Your task to perform on an android device: Open internet settings Image 0: 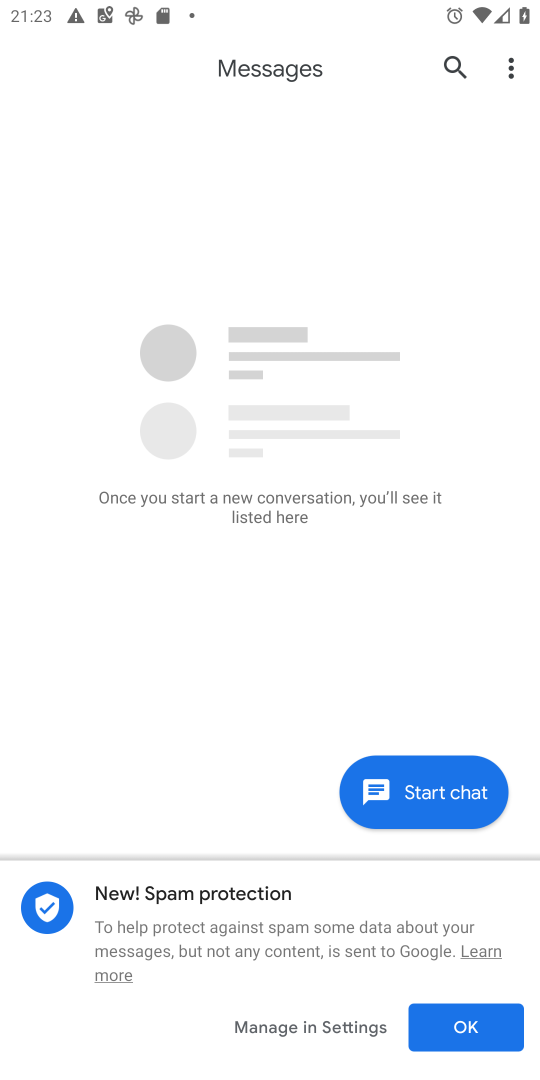
Step 0: press home button
Your task to perform on an android device: Open internet settings Image 1: 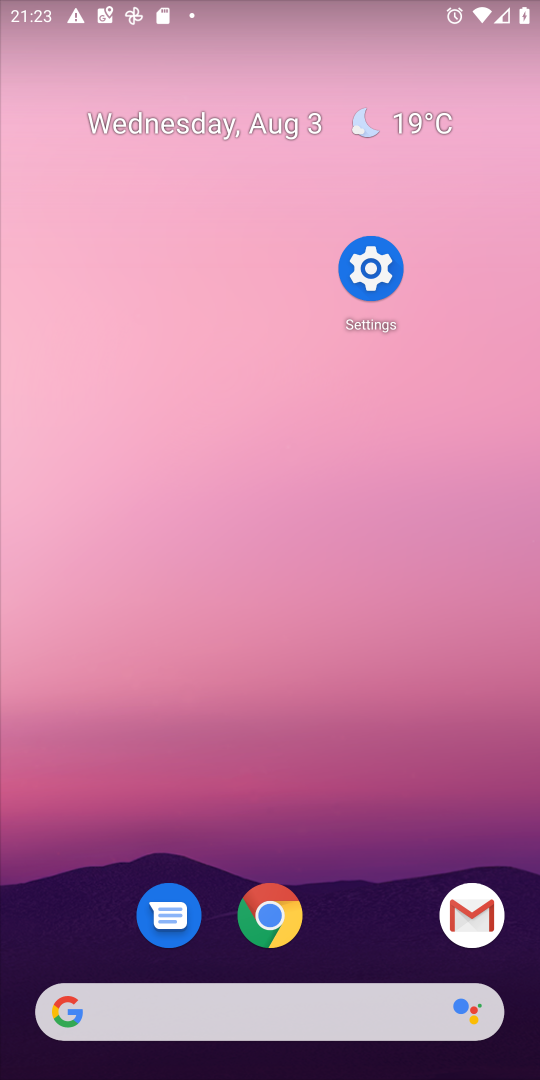
Step 1: drag from (345, 954) to (237, 276)
Your task to perform on an android device: Open internet settings Image 2: 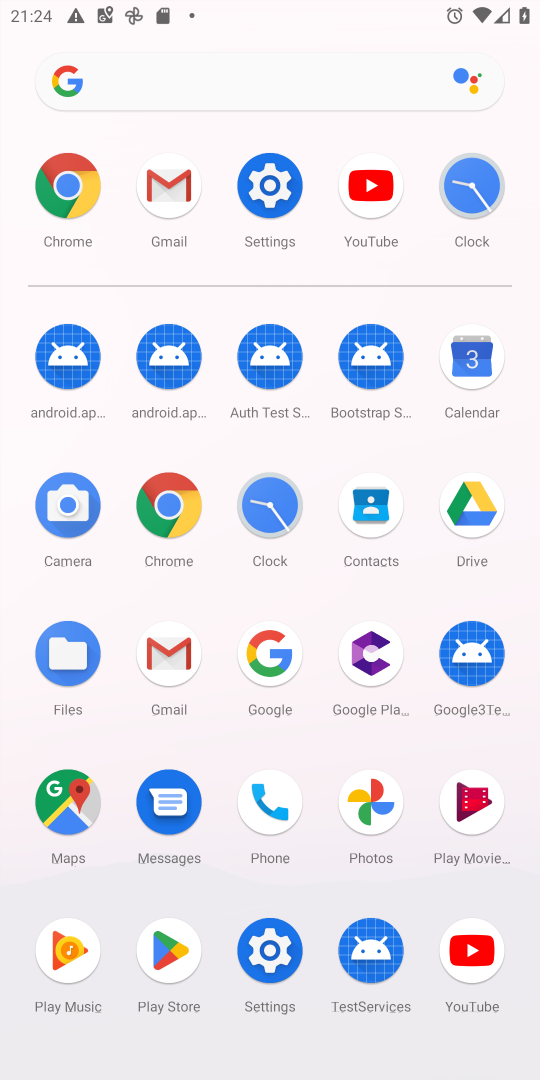
Step 2: click (277, 190)
Your task to perform on an android device: Open internet settings Image 3: 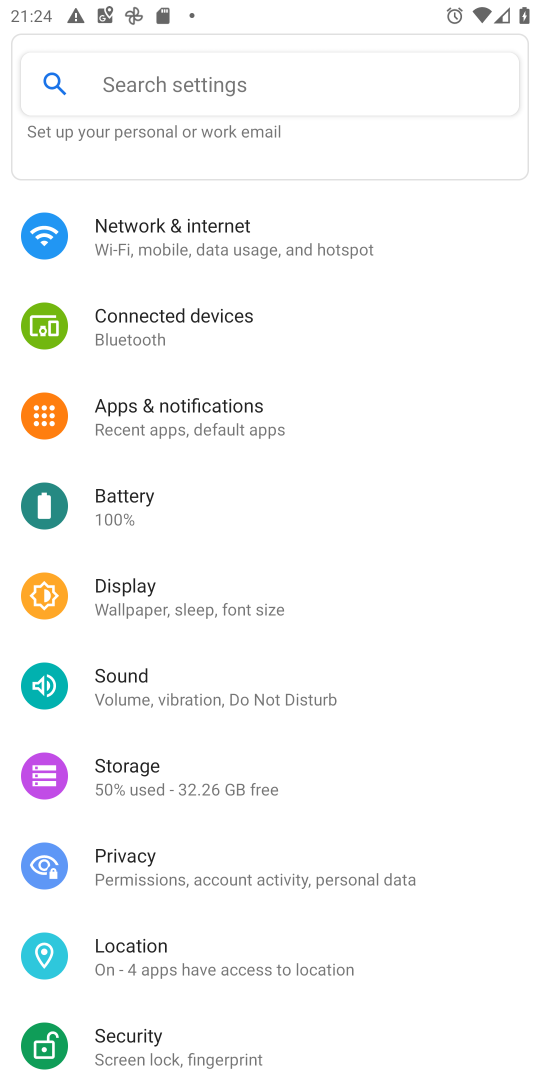
Step 3: click (213, 250)
Your task to perform on an android device: Open internet settings Image 4: 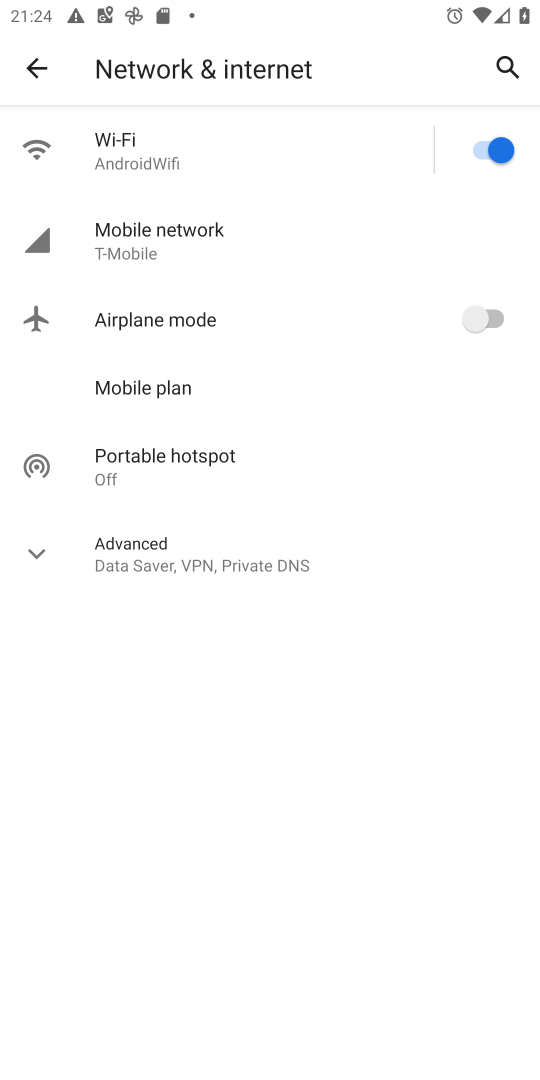
Step 4: task complete